Your task to perform on an android device: Open Chrome and go to the settings page Image 0: 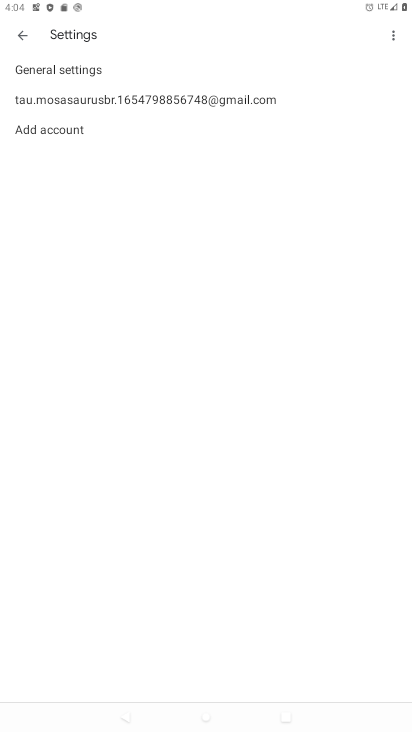
Step 0: press home button
Your task to perform on an android device: Open Chrome and go to the settings page Image 1: 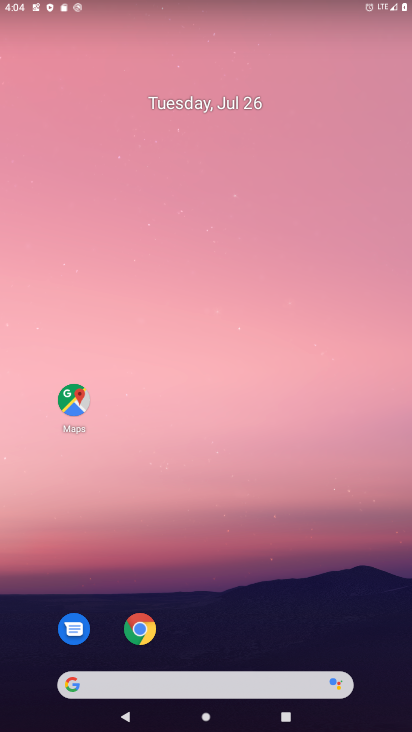
Step 1: drag from (226, 727) to (228, 292)
Your task to perform on an android device: Open Chrome and go to the settings page Image 2: 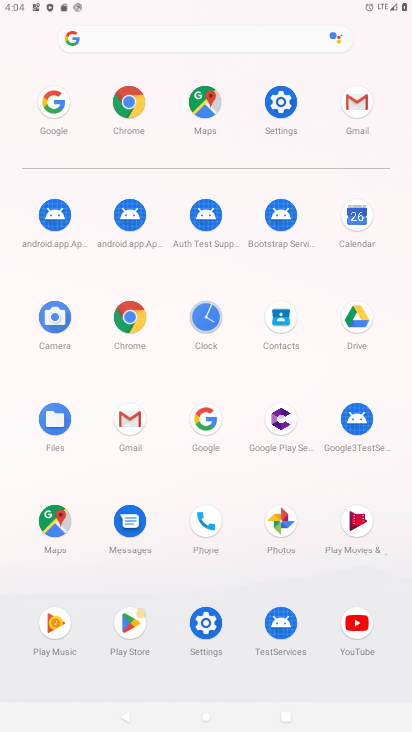
Step 2: click (129, 323)
Your task to perform on an android device: Open Chrome and go to the settings page Image 3: 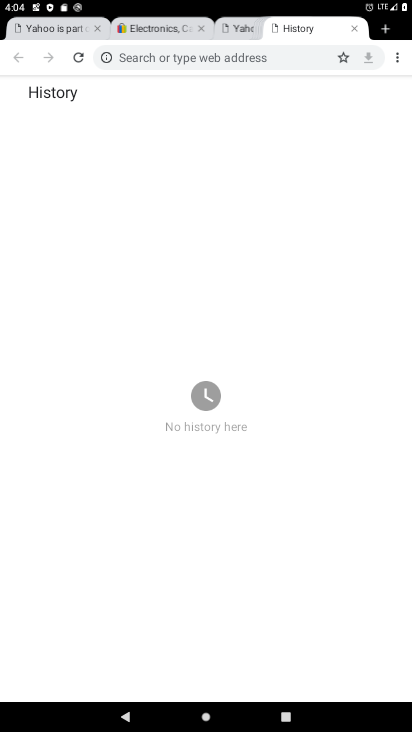
Step 3: click (397, 60)
Your task to perform on an android device: Open Chrome and go to the settings page Image 4: 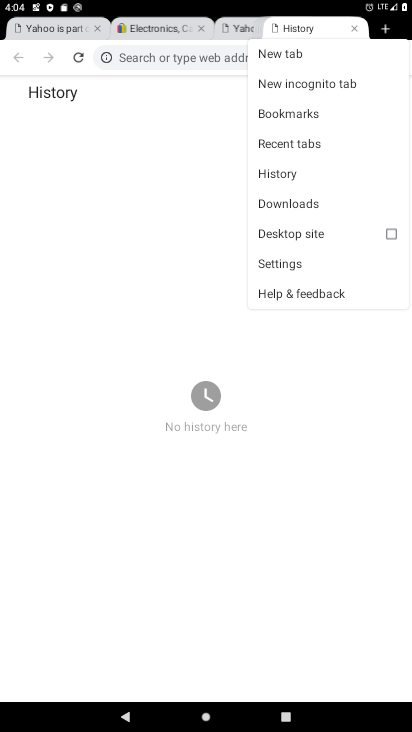
Step 4: click (282, 261)
Your task to perform on an android device: Open Chrome and go to the settings page Image 5: 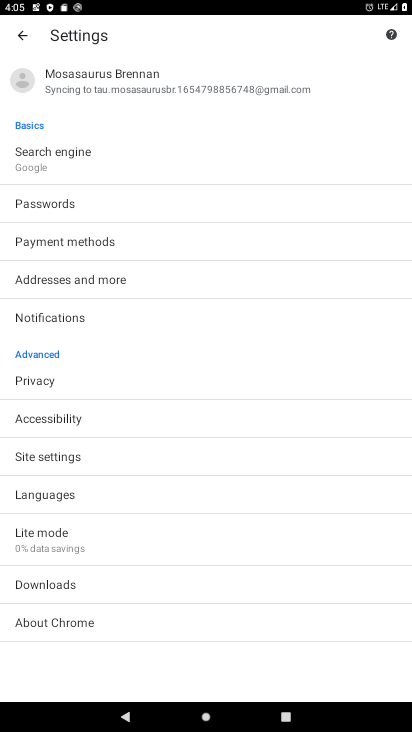
Step 5: task complete